Your task to perform on an android device: open a bookmark in the chrome app Image 0: 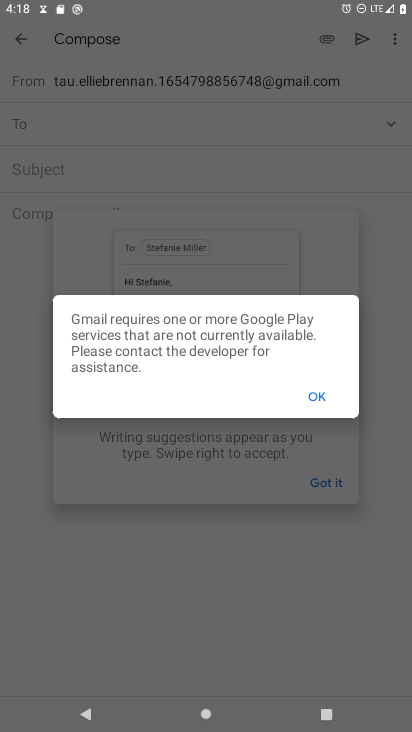
Step 0: press home button
Your task to perform on an android device: open a bookmark in the chrome app Image 1: 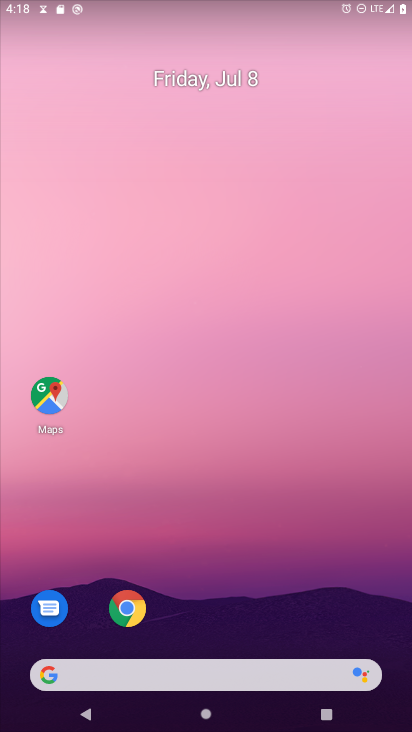
Step 1: drag from (246, 672) to (309, 91)
Your task to perform on an android device: open a bookmark in the chrome app Image 2: 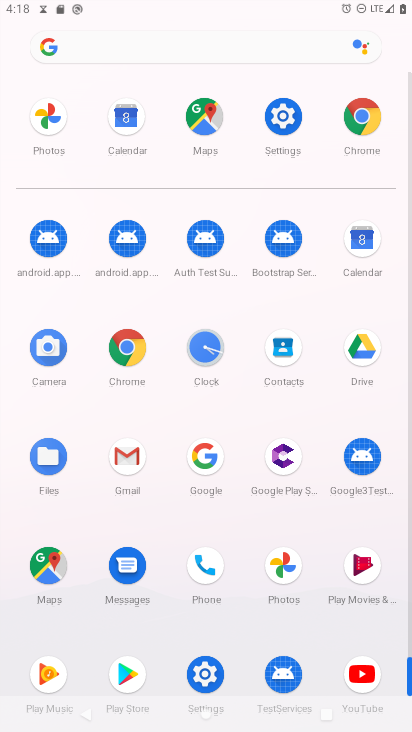
Step 2: click (132, 350)
Your task to perform on an android device: open a bookmark in the chrome app Image 3: 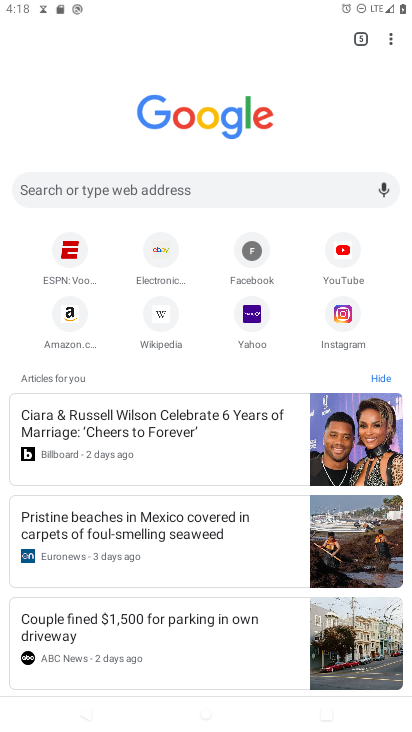
Step 3: task complete